Your task to perform on an android device: add a contact Image 0: 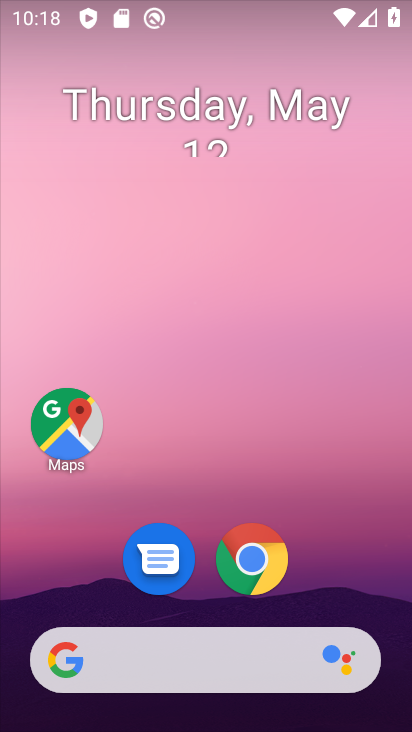
Step 0: drag from (218, 602) to (221, 218)
Your task to perform on an android device: add a contact Image 1: 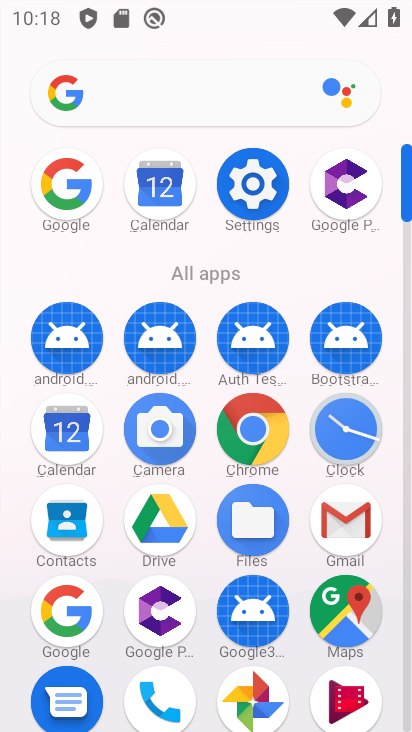
Step 1: drag from (209, 588) to (209, 347)
Your task to perform on an android device: add a contact Image 2: 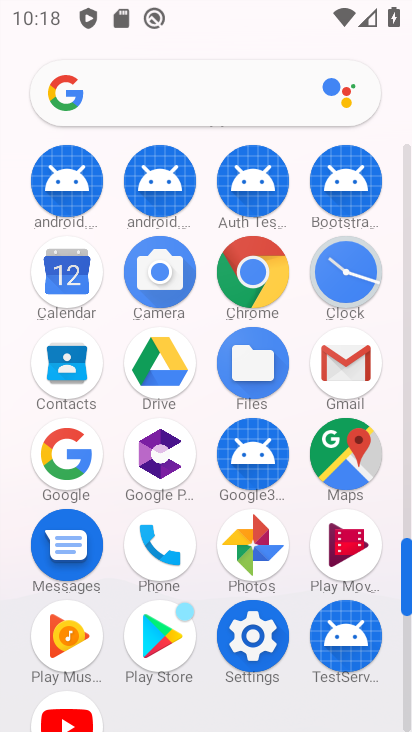
Step 2: click (72, 378)
Your task to perform on an android device: add a contact Image 3: 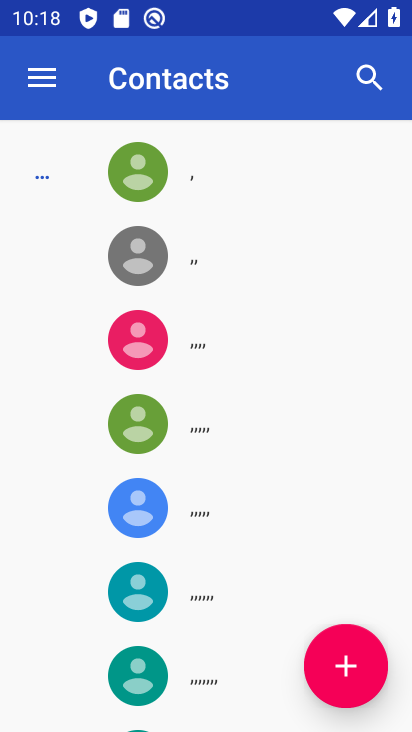
Step 3: click (336, 652)
Your task to perform on an android device: add a contact Image 4: 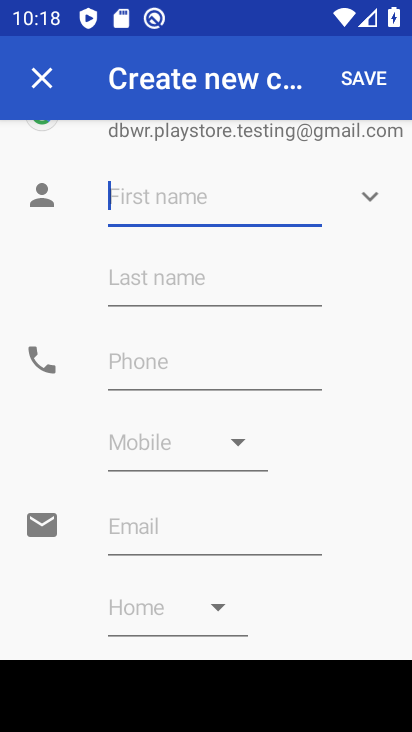
Step 4: type "dvf"
Your task to perform on an android device: add a contact Image 5: 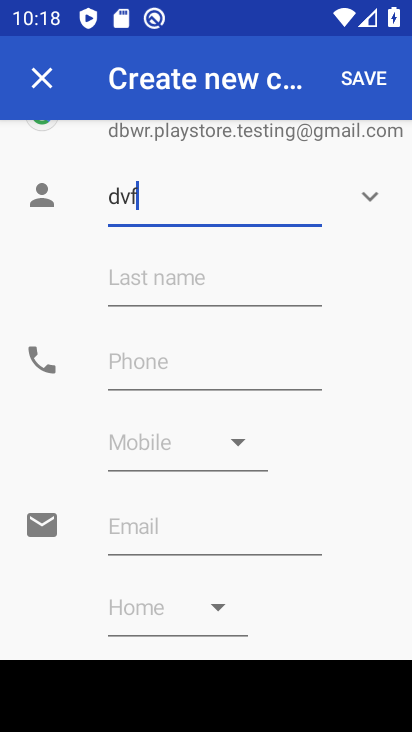
Step 5: click (179, 360)
Your task to perform on an android device: add a contact Image 6: 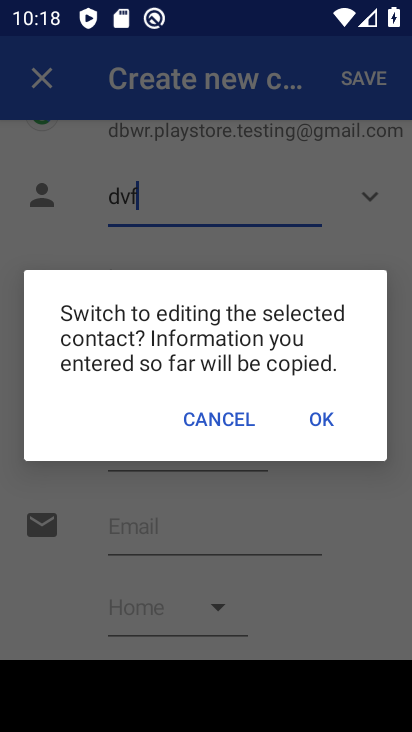
Step 6: type "866567"
Your task to perform on an android device: add a contact Image 7: 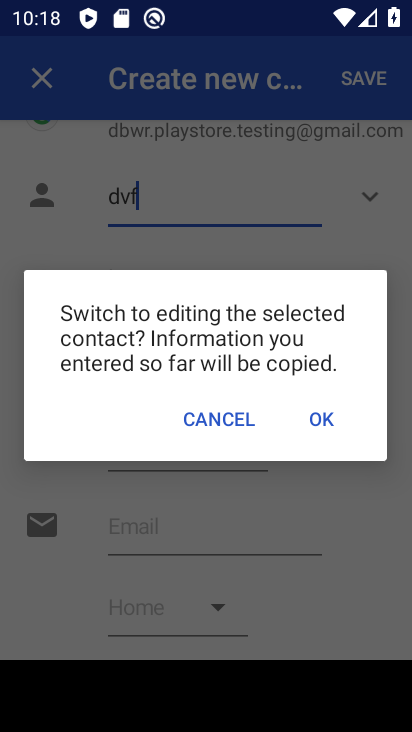
Step 7: click (317, 424)
Your task to perform on an android device: add a contact Image 8: 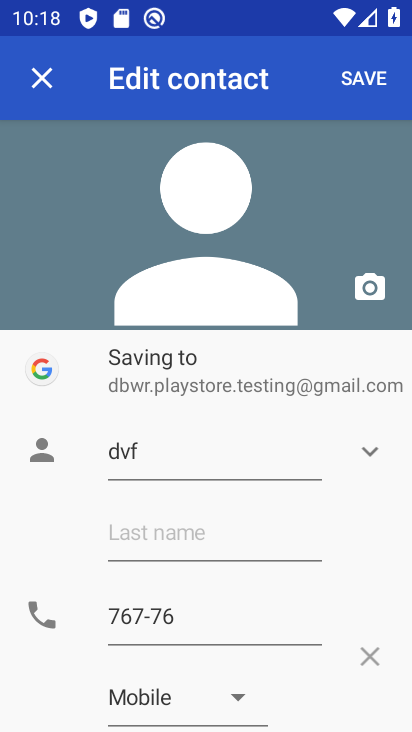
Step 8: click (347, 81)
Your task to perform on an android device: add a contact Image 9: 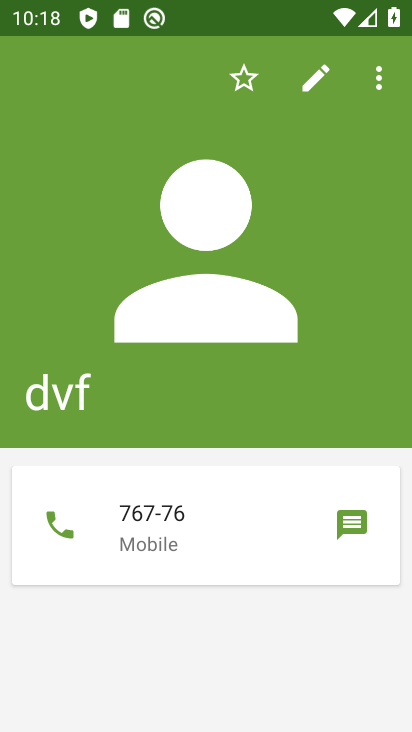
Step 9: task complete